Your task to perform on an android device: Open Youtube and go to the subscriptions tab Image 0: 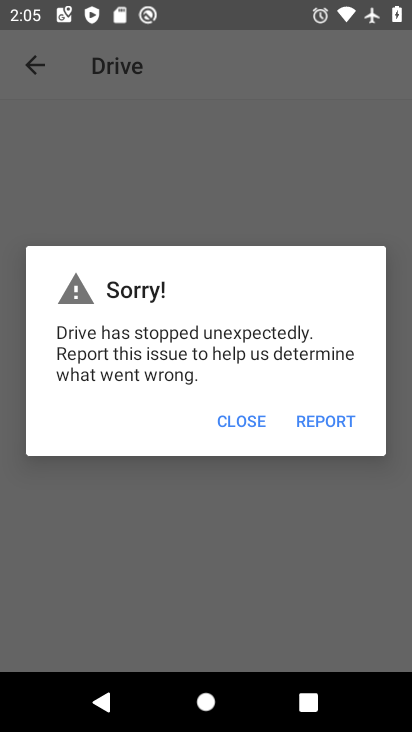
Step 0: press home button
Your task to perform on an android device: Open Youtube and go to the subscriptions tab Image 1: 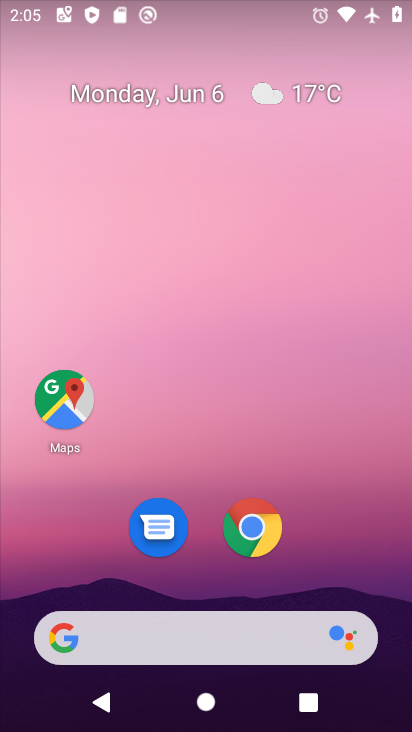
Step 1: drag from (315, 567) to (218, 22)
Your task to perform on an android device: Open Youtube and go to the subscriptions tab Image 2: 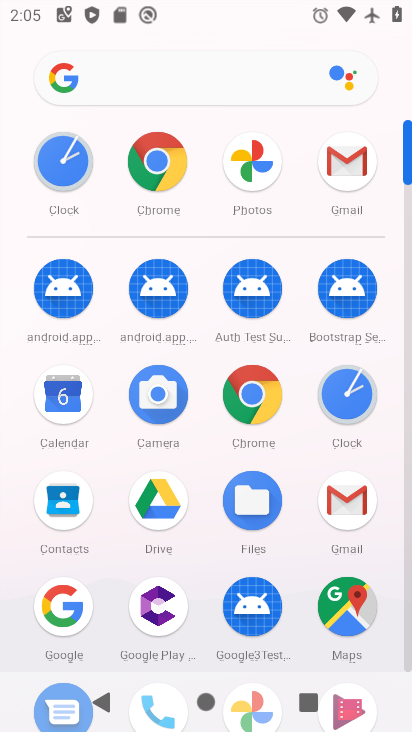
Step 2: drag from (176, 630) to (166, 123)
Your task to perform on an android device: Open Youtube and go to the subscriptions tab Image 3: 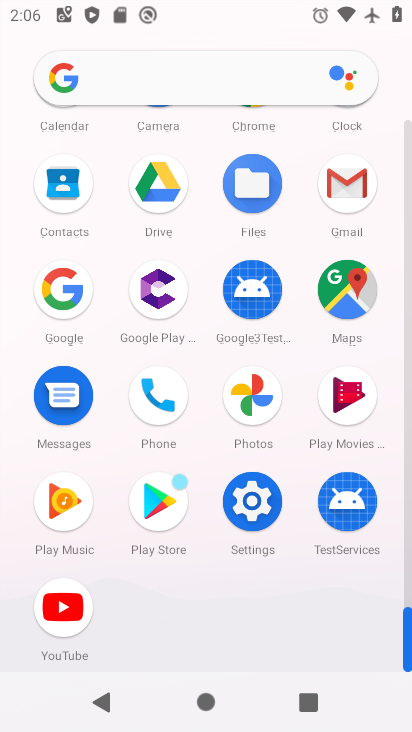
Step 3: click (57, 619)
Your task to perform on an android device: Open Youtube and go to the subscriptions tab Image 4: 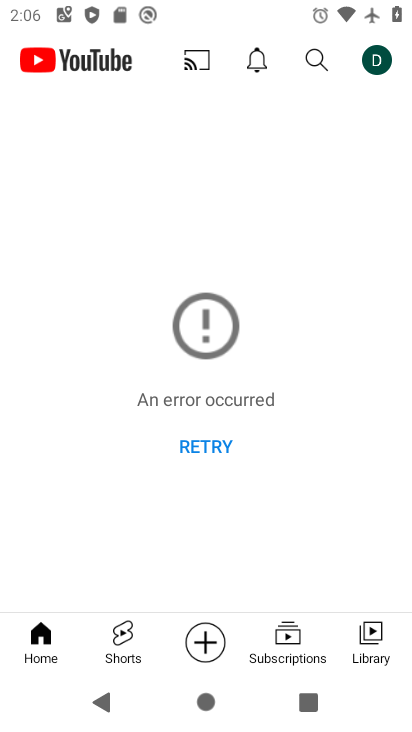
Step 4: click (283, 640)
Your task to perform on an android device: Open Youtube and go to the subscriptions tab Image 5: 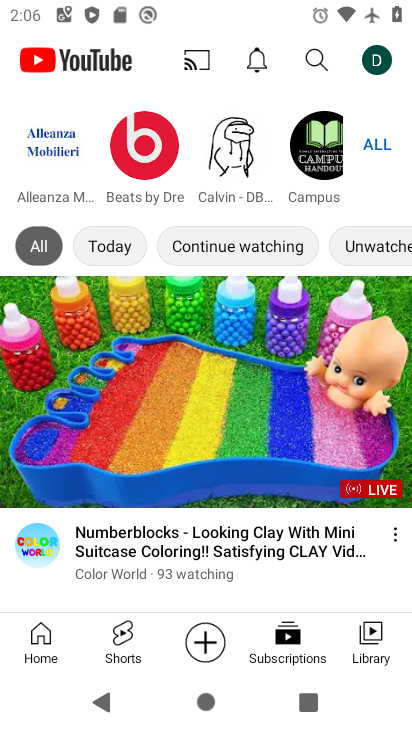
Step 5: task complete